Your task to perform on an android device: Show me recent news Image 0: 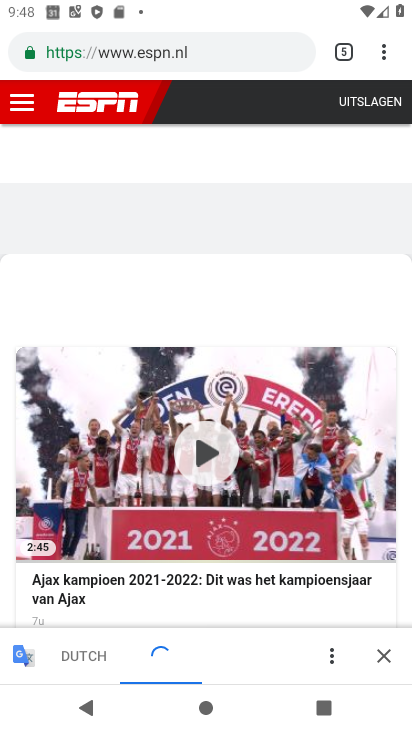
Step 0: press home button
Your task to perform on an android device: Show me recent news Image 1: 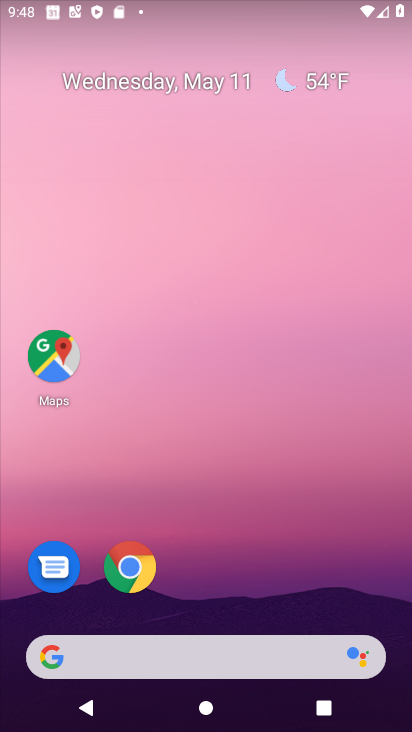
Step 1: click (191, 650)
Your task to perform on an android device: Show me recent news Image 2: 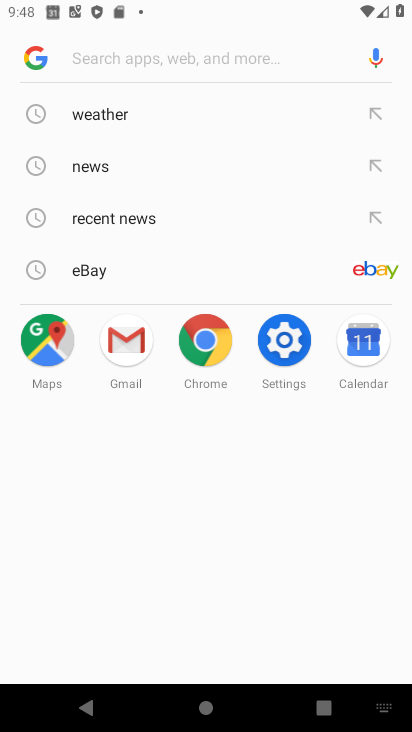
Step 2: click (148, 231)
Your task to perform on an android device: Show me recent news Image 3: 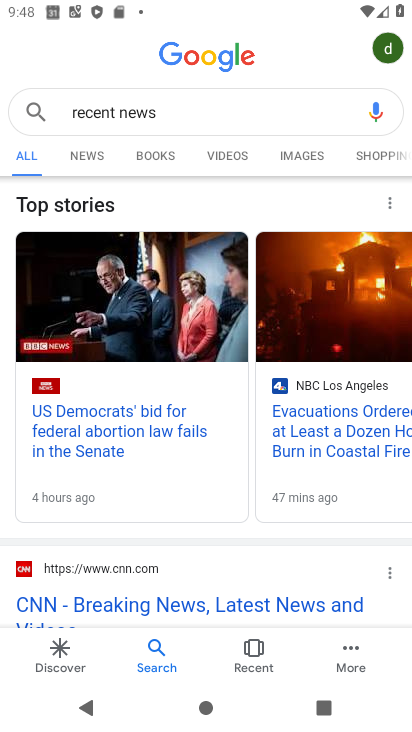
Step 3: task complete